Your task to perform on an android device: turn notification dots on Image 0: 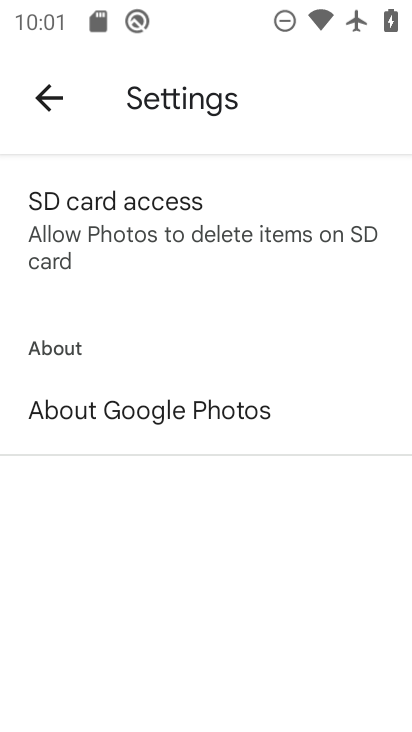
Step 0: press home button
Your task to perform on an android device: turn notification dots on Image 1: 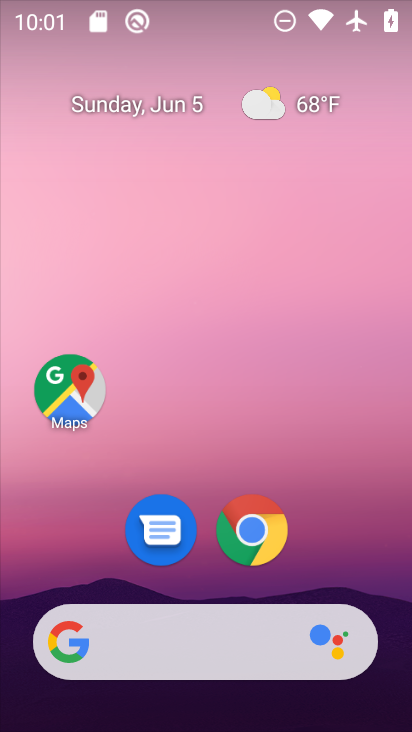
Step 1: drag from (381, 586) to (333, 84)
Your task to perform on an android device: turn notification dots on Image 2: 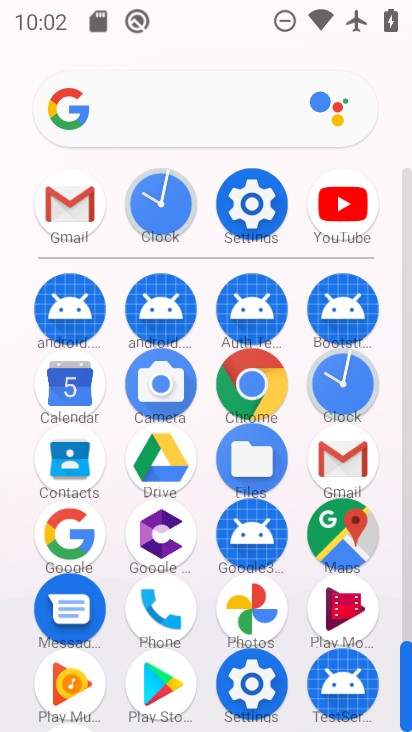
Step 2: click (251, 681)
Your task to perform on an android device: turn notification dots on Image 3: 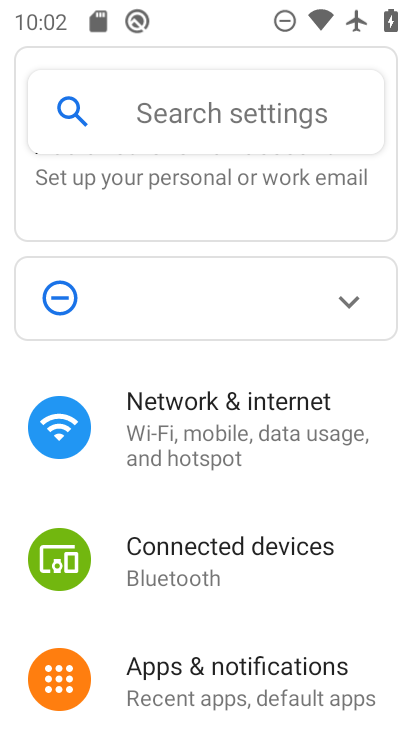
Step 3: click (184, 660)
Your task to perform on an android device: turn notification dots on Image 4: 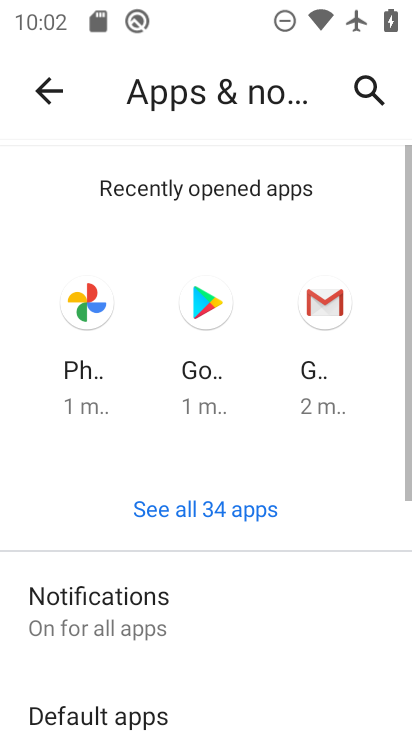
Step 4: drag from (184, 660) to (213, 188)
Your task to perform on an android device: turn notification dots on Image 5: 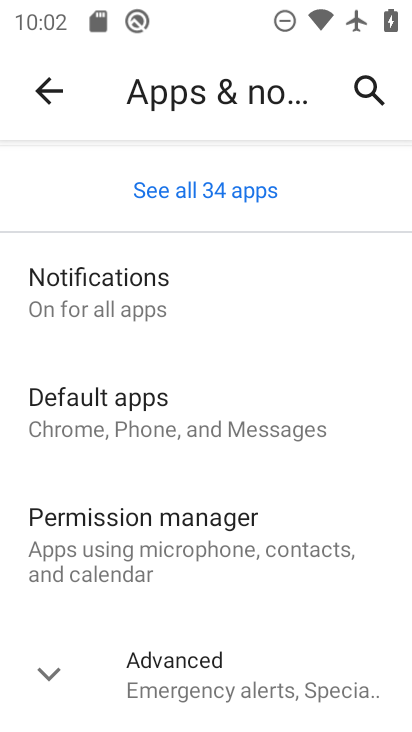
Step 5: click (122, 288)
Your task to perform on an android device: turn notification dots on Image 6: 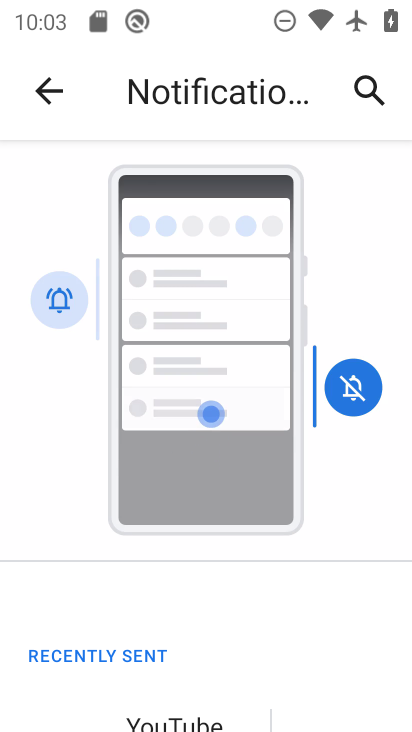
Step 6: drag from (242, 667) to (223, 141)
Your task to perform on an android device: turn notification dots on Image 7: 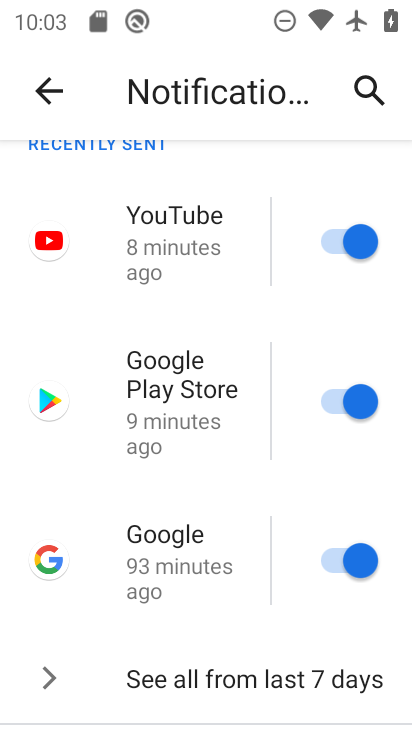
Step 7: drag from (250, 593) to (249, 141)
Your task to perform on an android device: turn notification dots on Image 8: 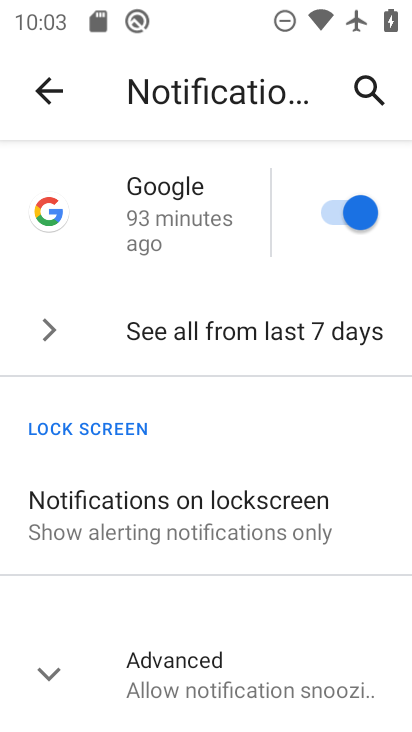
Step 8: click (46, 681)
Your task to perform on an android device: turn notification dots on Image 9: 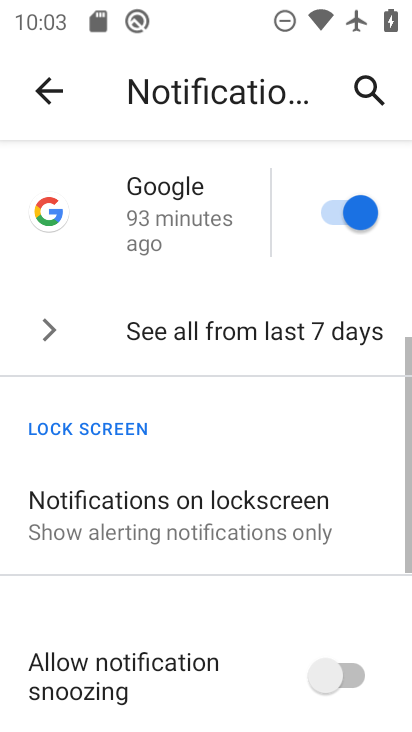
Step 9: task complete